Your task to perform on an android device: show emergency info Image 0: 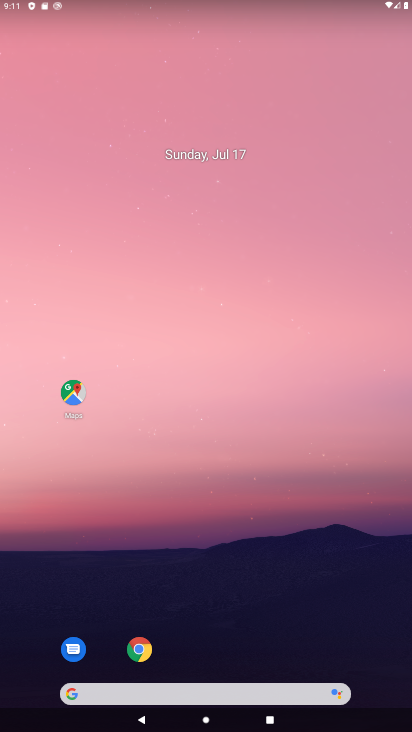
Step 0: drag from (225, 227) to (319, 8)
Your task to perform on an android device: show emergency info Image 1: 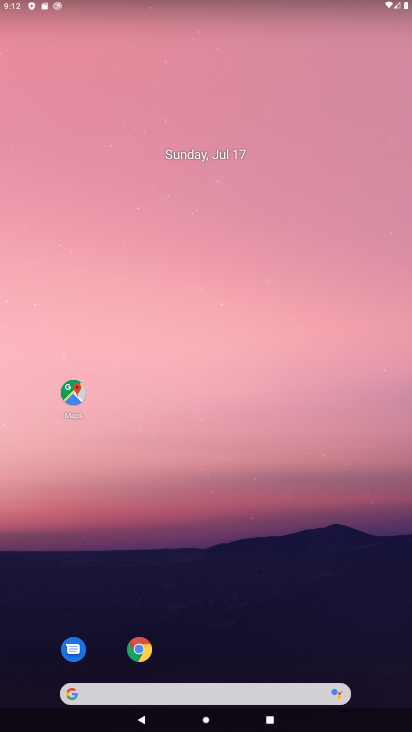
Step 1: drag from (63, 629) to (311, 208)
Your task to perform on an android device: show emergency info Image 2: 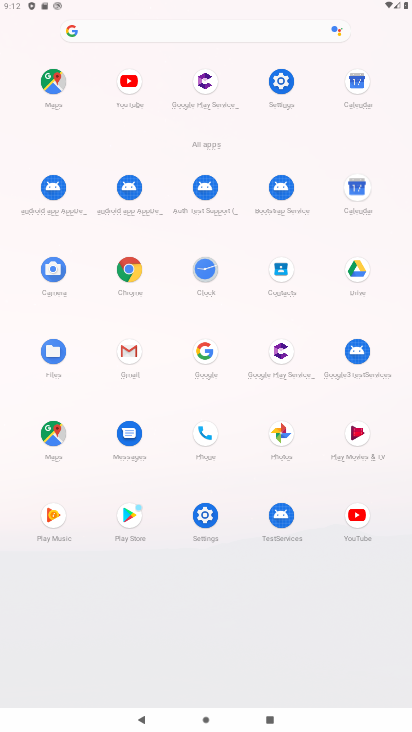
Step 2: click (207, 510)
Your task to perform on an android device: show emergency info Image 3: 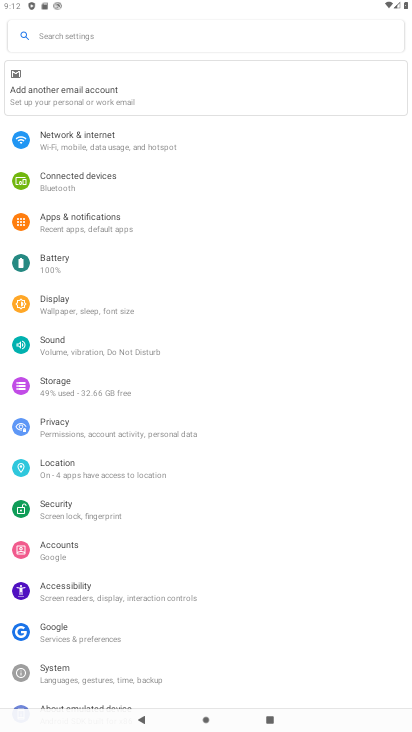
Step 3: click (76, 145)
Your task to perform on an android device: show emergency info Image 4: 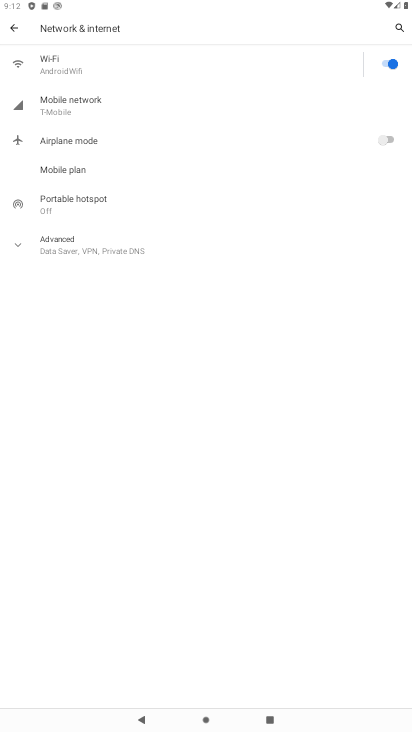
Step 4: click (13, 29)
Your task to perform on an android device: show emergency info Image 5: 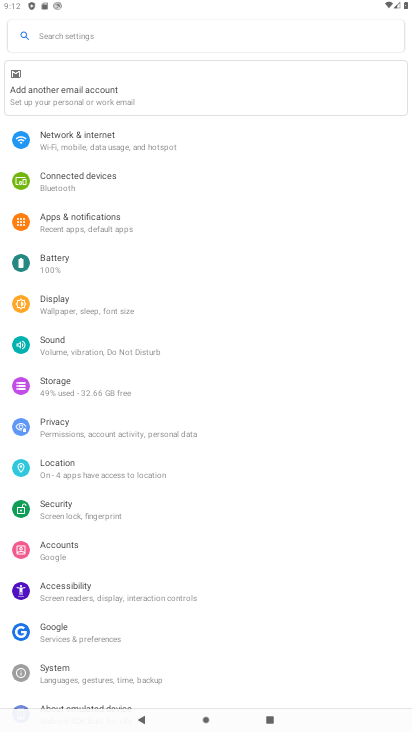
Step 5: click (100, 218)
Your task to perform on an android device: show emergency info Image 6: 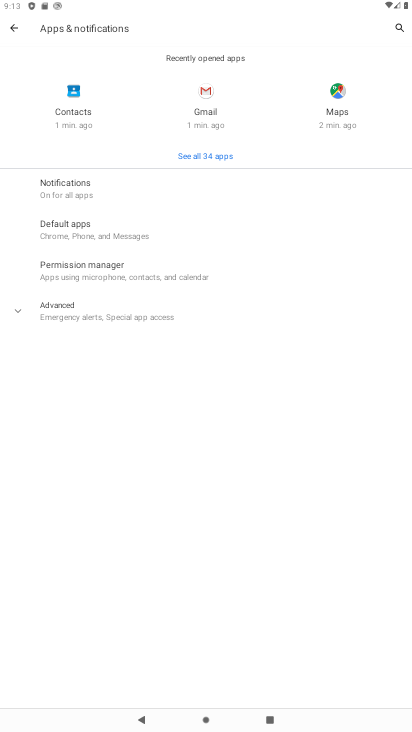
Step 6: click (67, 315)
Your task to perform on an android device: show emergency info Image 7: 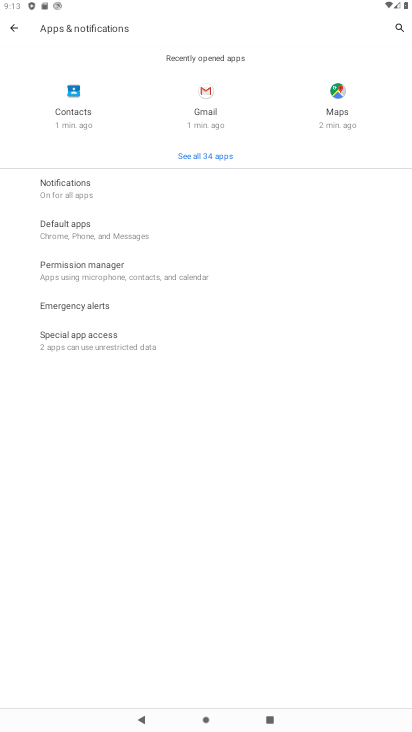
Step 7: click (95, 297)
Your task to perform on an android device: show emergency info Image 8: 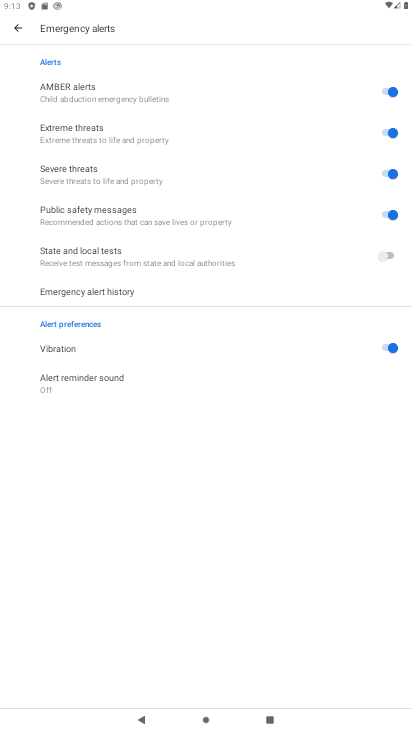
Step 8: task complete